Your task to perform on an android device: Go to Amazon Image 0: 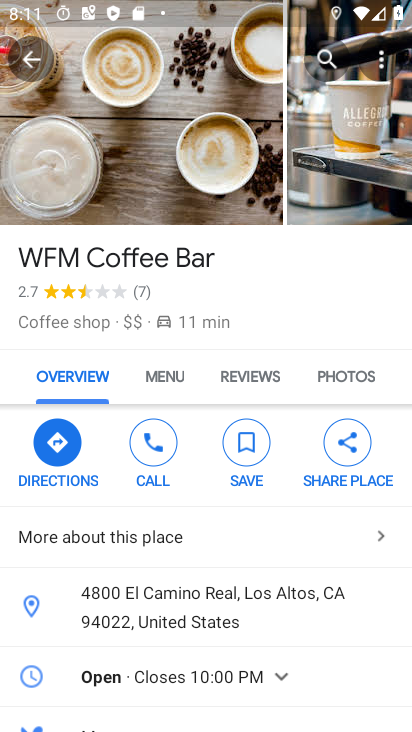
Step 0: press home button
Your task to perform on an android device: Go to Amazon Image 1: 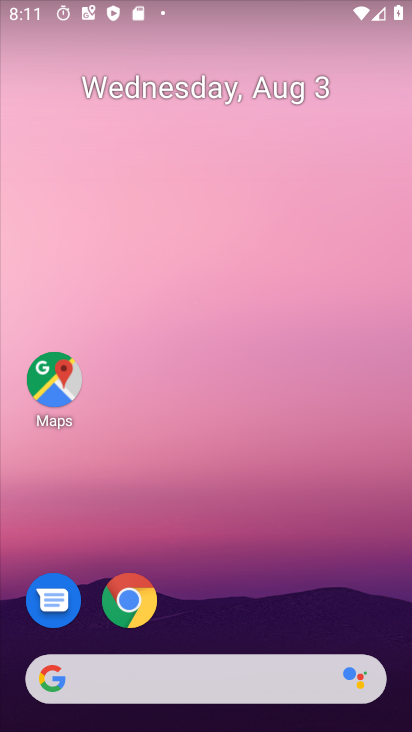
Step 1: drag from (194, 653) to (213, 140)
Your task to perform on an android device: Go to Amazon Image 2: 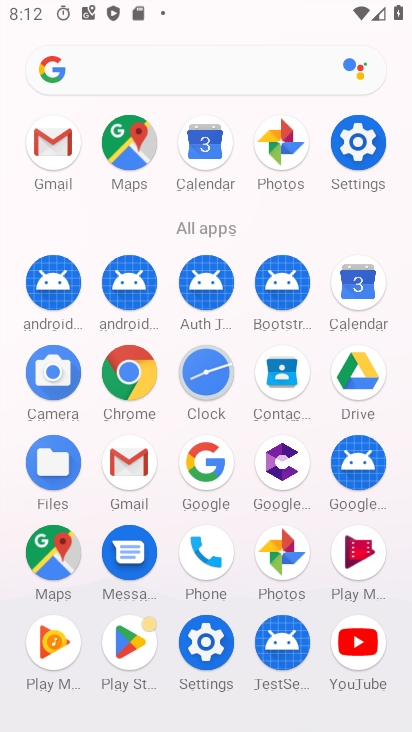
Step 2: drag from (206, 512) to (227, 275)
Your task to perform on an android device: Go to Amazon Image 3: 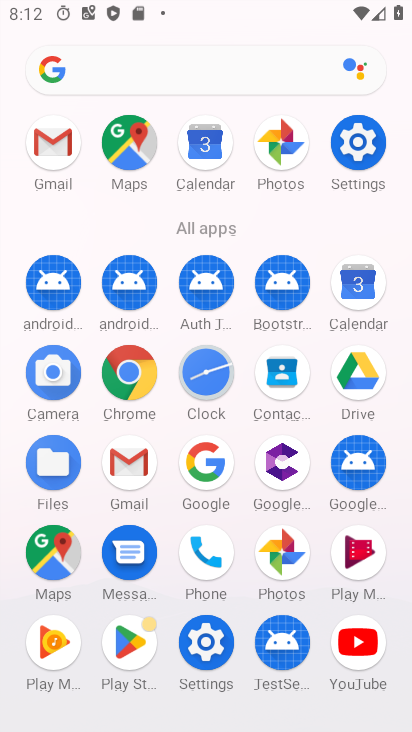
Step 3: click (123, 394)
Your task to perform on an android device: Go to Amazon Image 4: 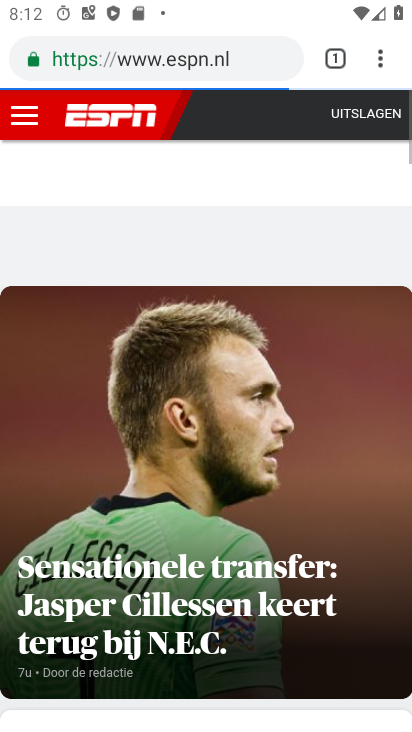
Step 4: click (177, 56)
Your task to perform on an android device: Go to Amazon Image 5: 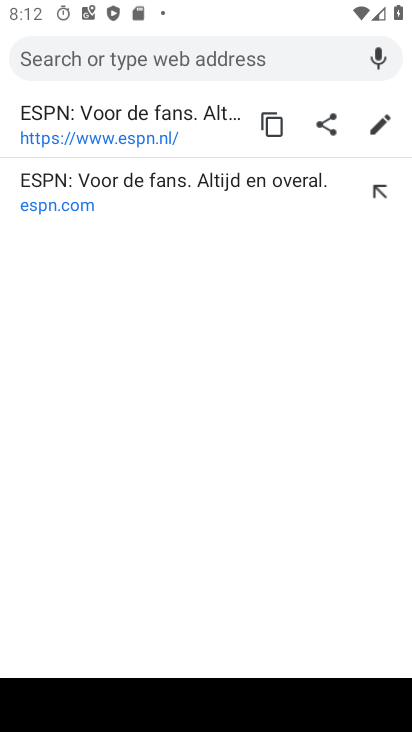
Step 5: type "Amazon"
Your task to perform on an android device: Go to Amazon Image 6: 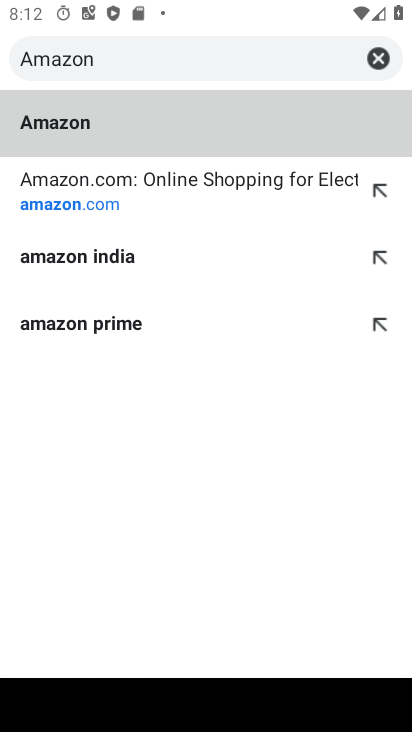
Step 6: click (68, 191)
Your task to perform on an android device: Go to Amazon Image 7: 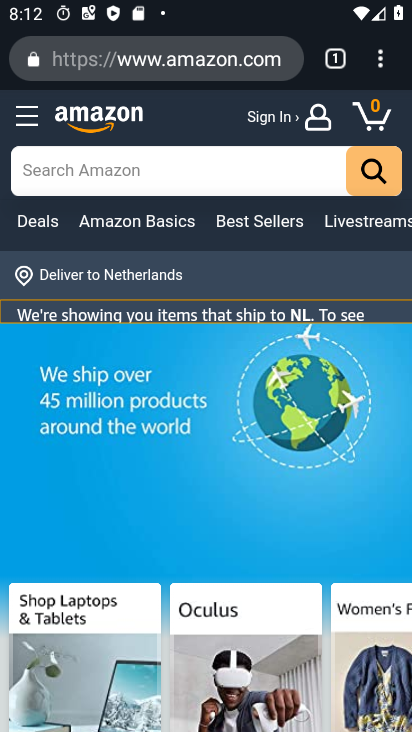
Step 7: task complete